Your task to perform on an android device: Go to notification settings Image 0: 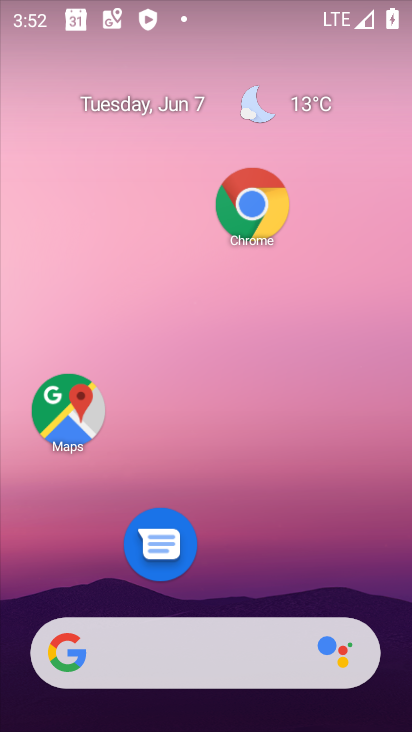
Step 0: drag from (237, 586) to (232, 97)
Your task to perform on an android device: Go to notification settings Image 1: 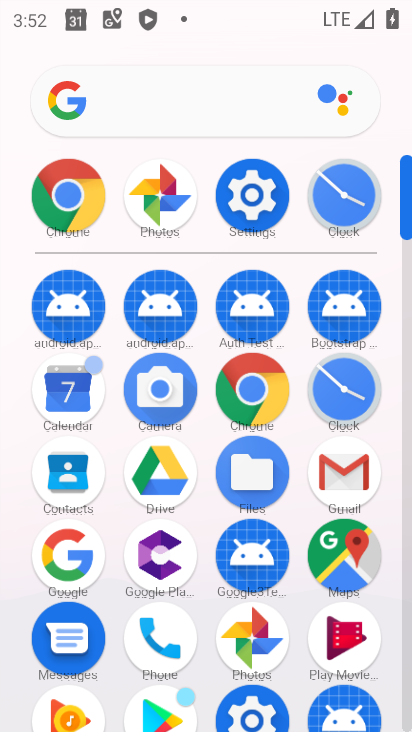
Step 1: click (248, 182)
Your task to perform on an android device: Go to notification settings Image 2: 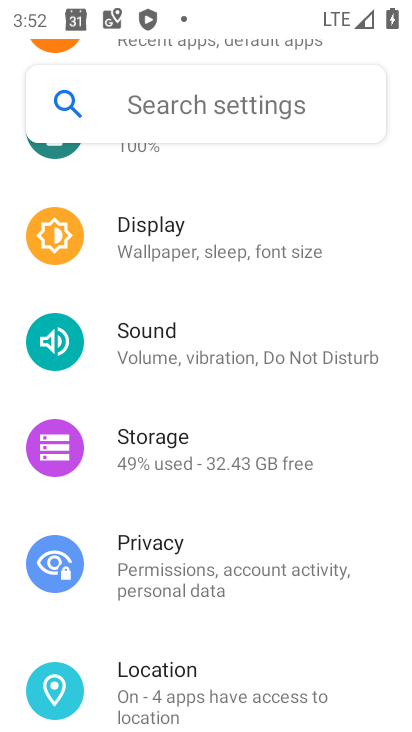
Step 2: drag from (192, 188) to (239, 475)
Your task to perform on an android device: Go to notification settings Image 3: 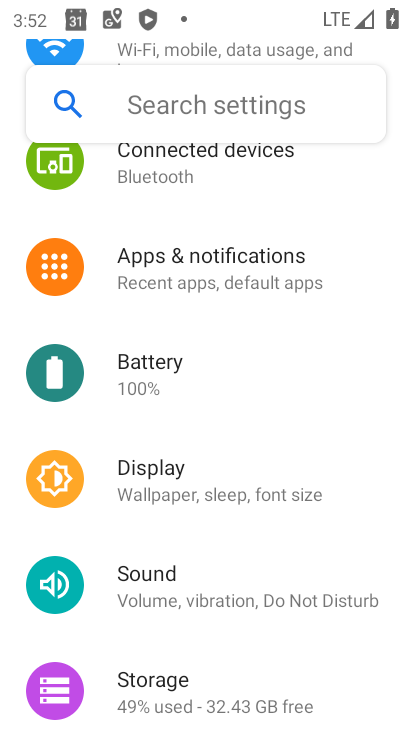
Step 3: click (210, 265)
Your task to perform on an android device: Go to notification settings Image 4: 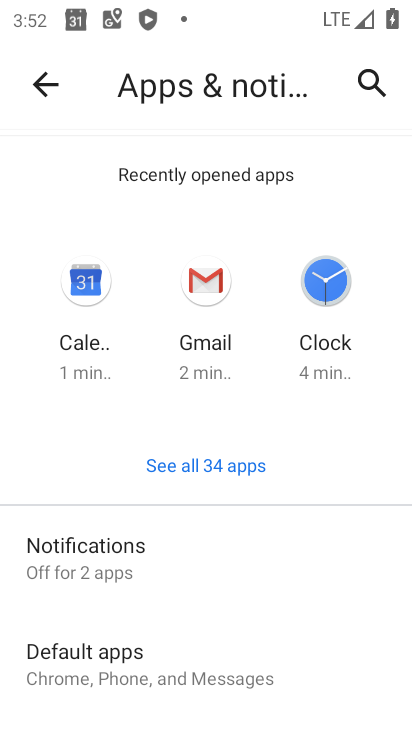
Step 4: click (172, 554)
Your task to perform on an android device: Go to notification settings Image 5: 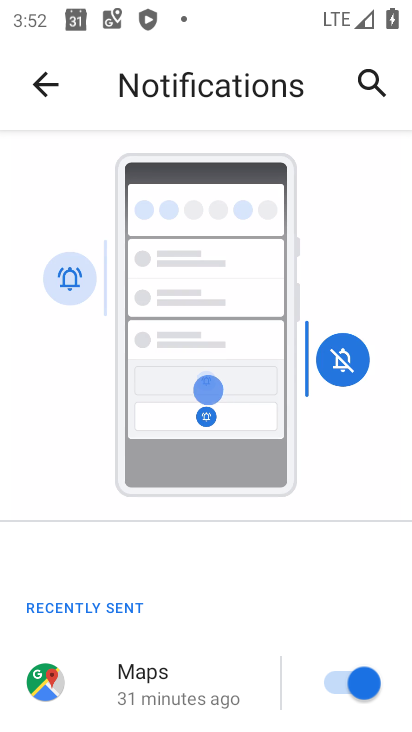
Step 5: drag from (229, 659) to (215, 129)
Your task to perform on an android device: Go to notification settings Image 6: 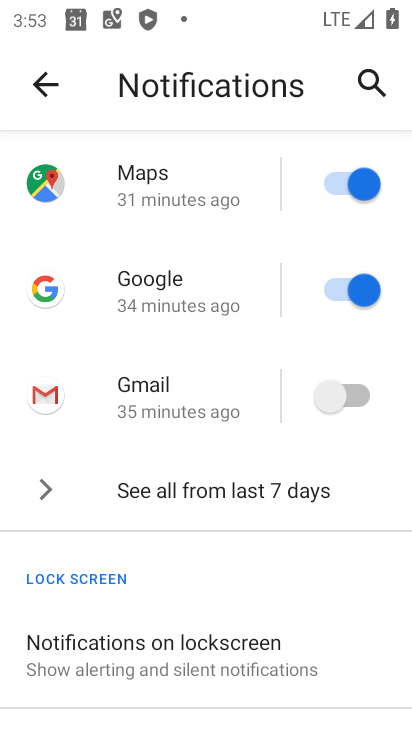
Step 6: click (347, 181)
Your task to perform on an android device: Go to notification settings Image 7: 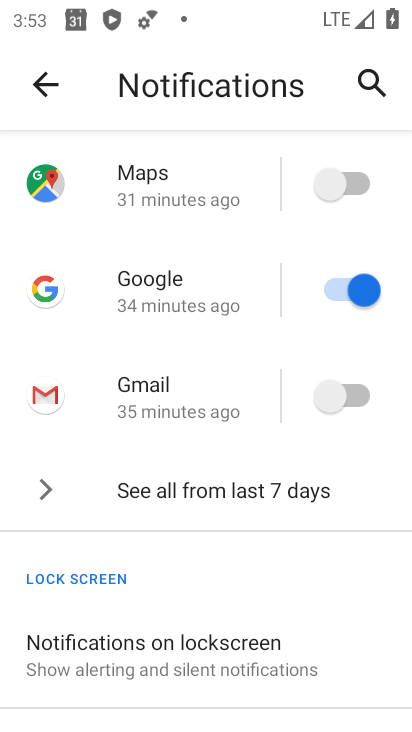
Step 7: click (337, 290)
Your task to perform on an android device: Go to notification settings Image 8: 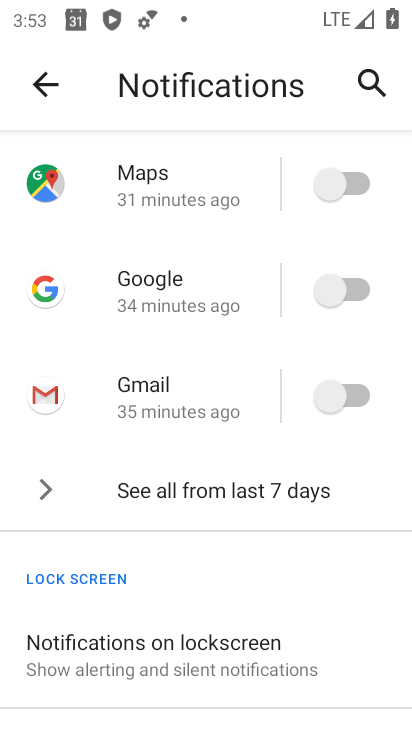
Step 8: drag from (217, 569) to (213, 144)
Your task to perform on an android device: Go to notification settings Image 9: 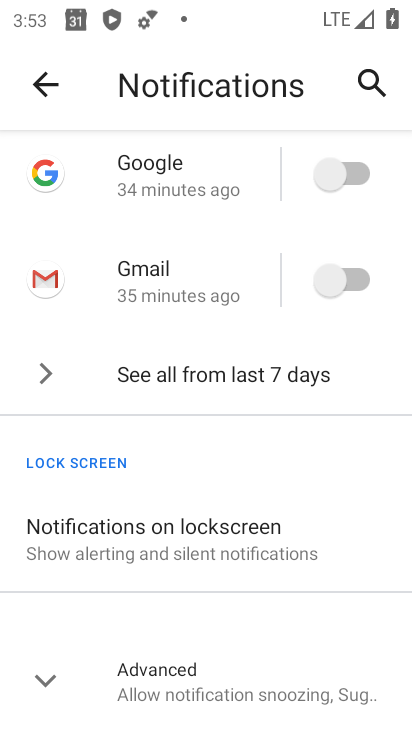
Step 9: click (60, 679)
Your task to perform on an android device: Go to notification settings Image 10: 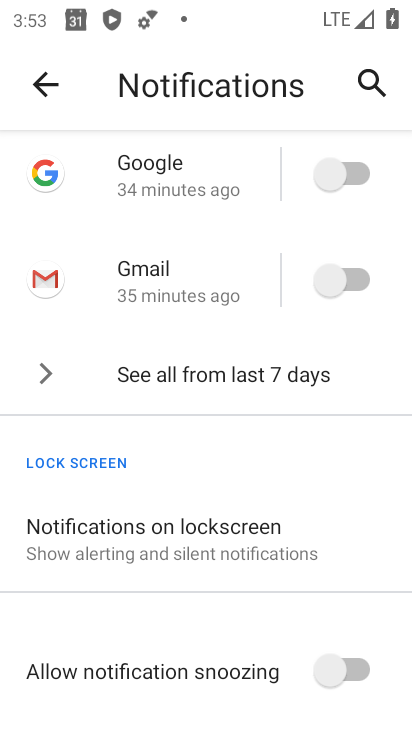
Step 10: drag from (140, 686) to (188, 235)
Your task to perform on an android device: Go to notification settings Image 11: 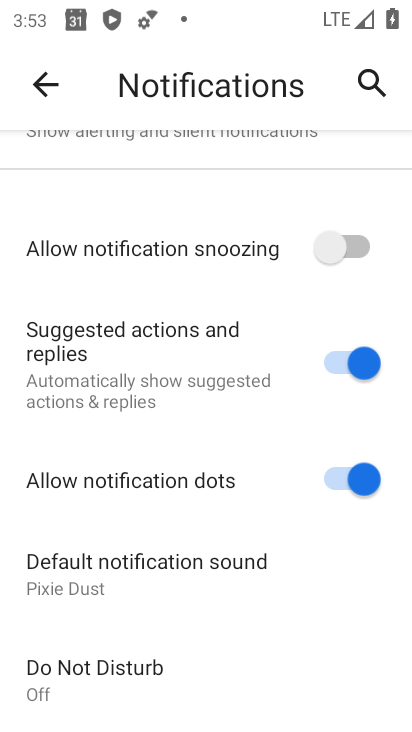
Step 11: click (345, 355)
Your task to perform on an android device: Go to notification settings Image 12: 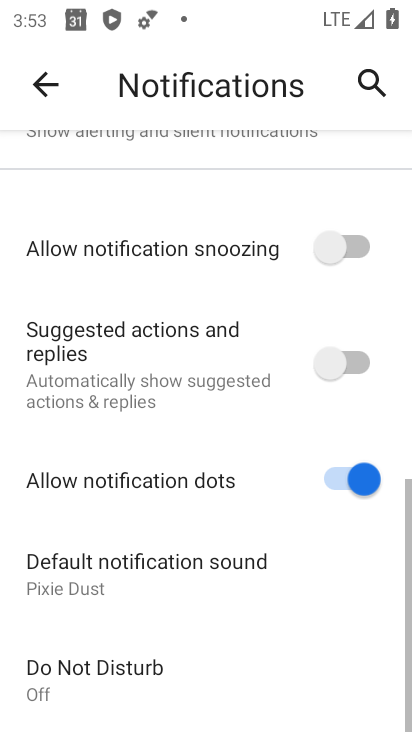
Step 12: click (348, 481)
Your task to perform on an android device: Go to notification settings Image 13: 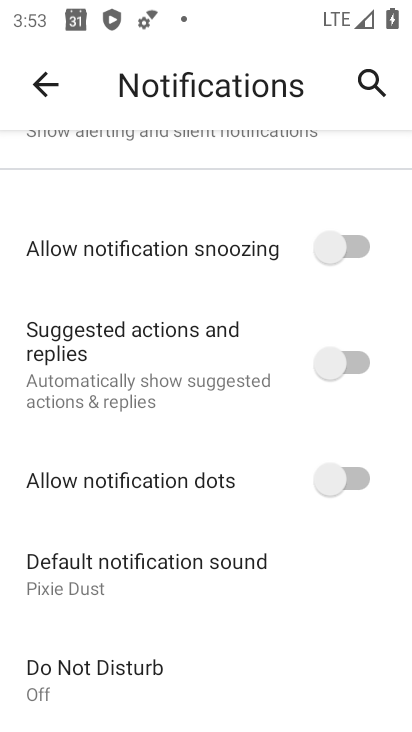
Step 13: task complete